Your task to perform on an android device: turn pop-ups off in chrome Image 0: 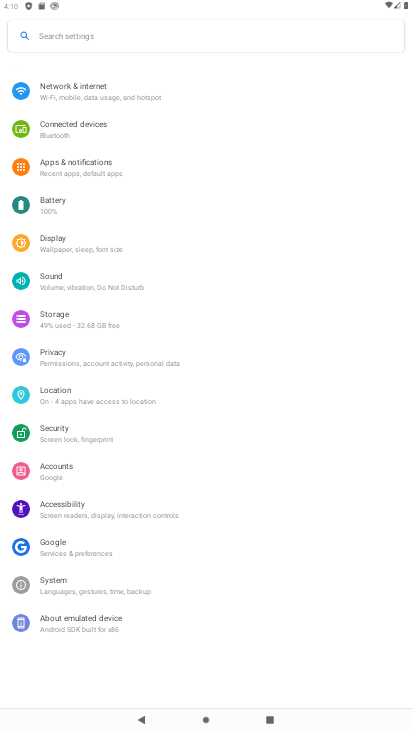
Step 0: drag from (264, 508) to (278, 82)
Your task to perform on an android device: turn pop-ups off in chrome Image 1: 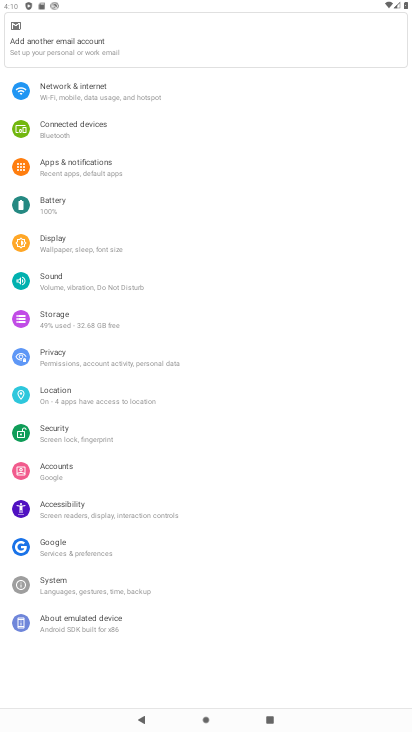
Step 1: press home button
Your task to perform on an android device: turn pop-ups off in chrome Image 2: 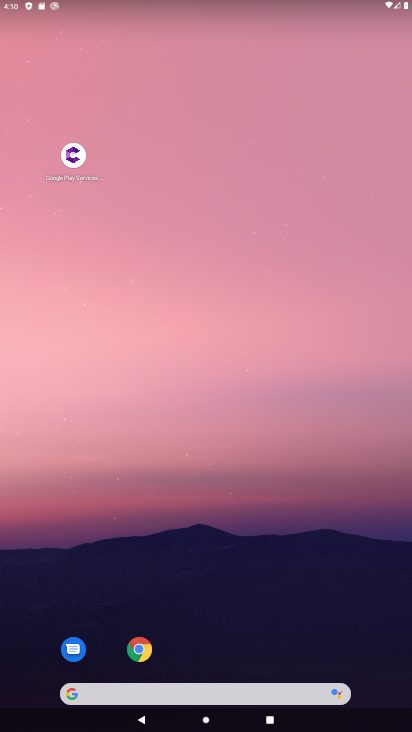
Step 2: drag from (324, 616) to (371, 47)
Your task to perform on an android device: turn pop-ups off in chrome Image 3: 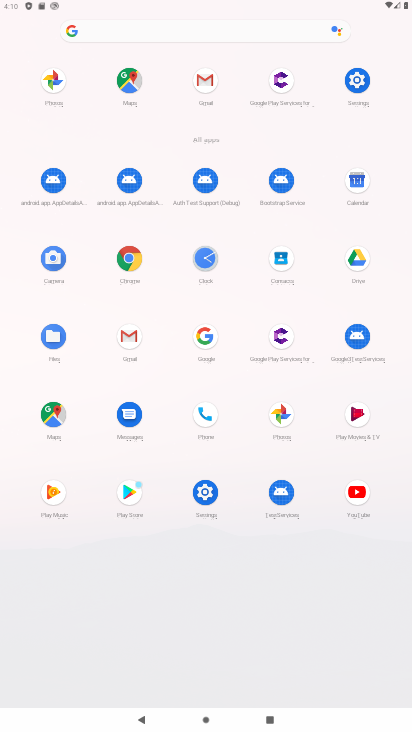
Step 3: click (128, 264)
Your task to perform on an android device: turn pop-ups off in chrome Image 4: 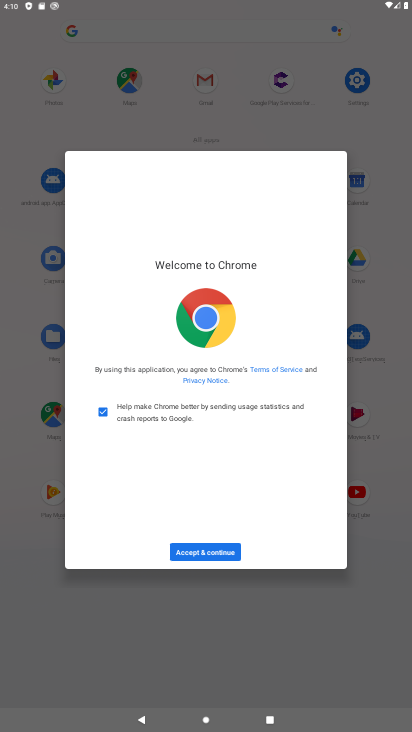
Step 4: click (185, 550)
Your task to perform on an android device: turn pop-ups off in chrome Image 5: 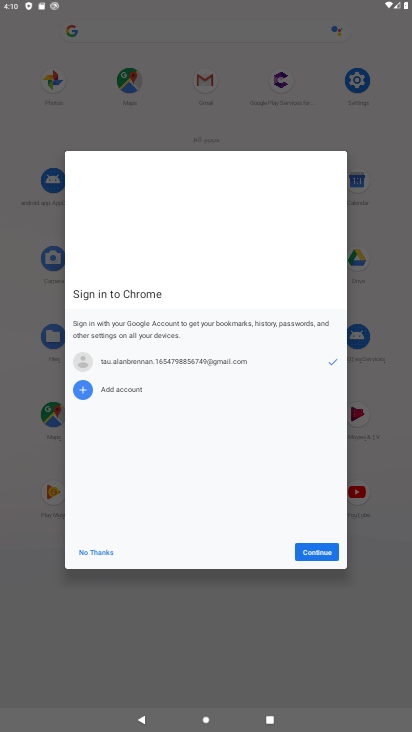
Step 5: click (88, 546)
Your task to perform on an android device: turn pop-ups off in chrome Image 6: 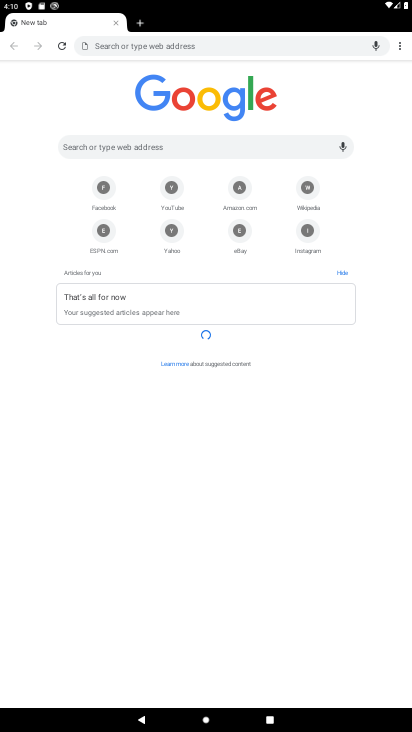
Step 6: drag from (406, 50) to (287, 218)
Your task to perform on an android device: turn pop-ups off in chrome Image 7: 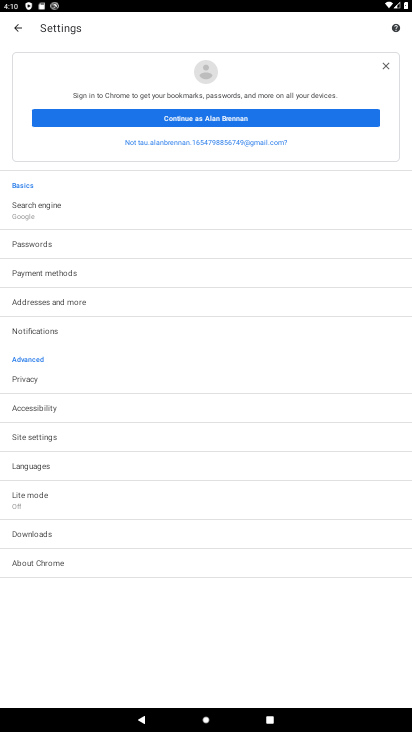
Step 7: click (53, 437)
Your task to perform on an android device: turn pop-ups off in chrome Image 8: 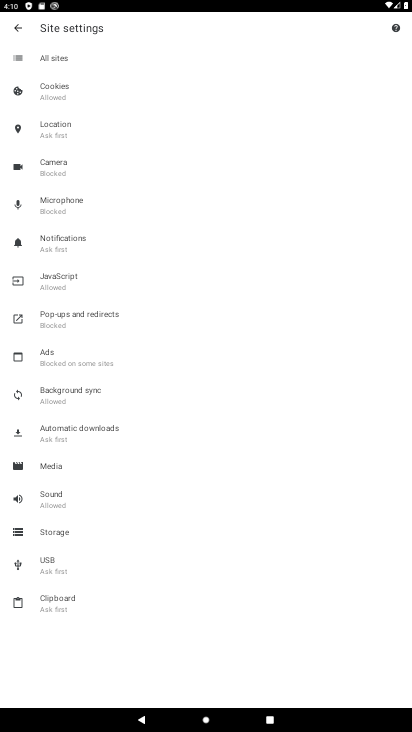
Step 8: click (76, 322)
Your task to perform on an android device: turn pop-ups off in chrome Image 9: 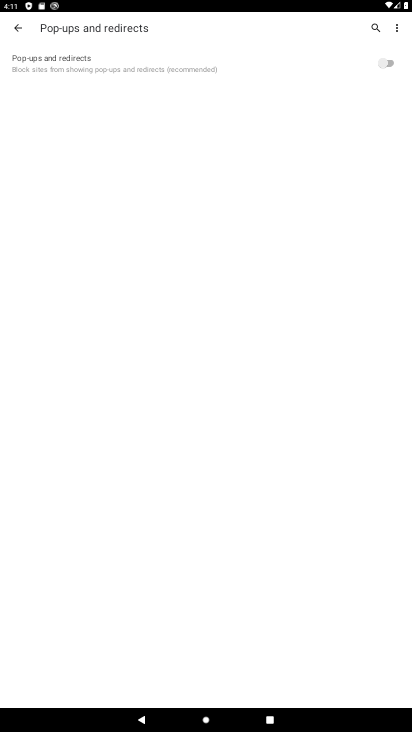
Step 9: task complete